Your task to perform on an android device: Open Google Chrome Image 0: 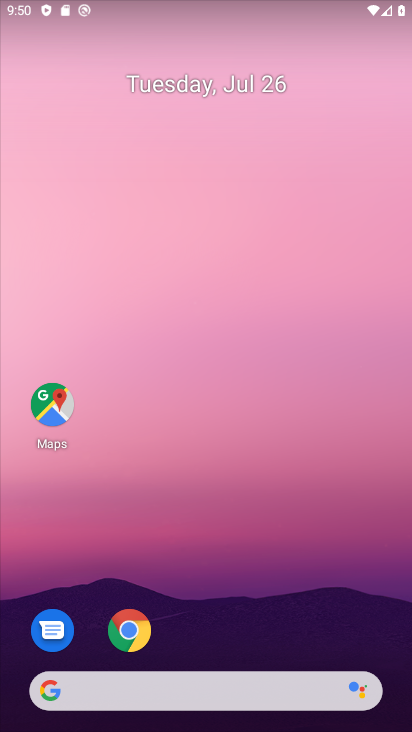
Step 0: click (129, 630)
Your task to perform on an android device: Open Google Chrome Image 1: 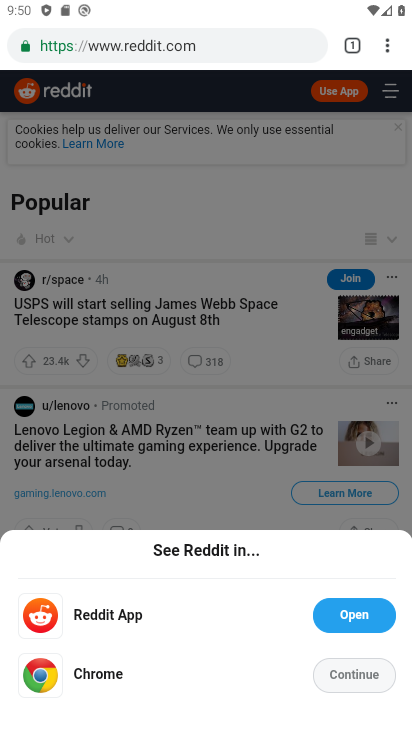
Step 1: task complete